Your task to perform on an android device: allow notifications from all sites in the chrome app Image 0: 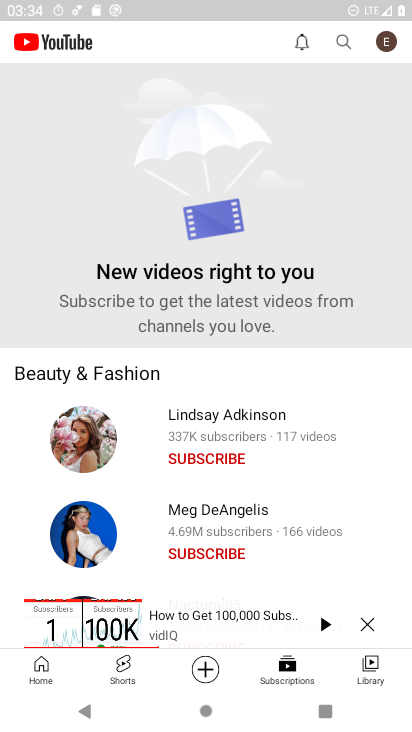
Step 0: press back button
Your task to perform on an android device: allow notifications from all sites in the chrome app Image 1: 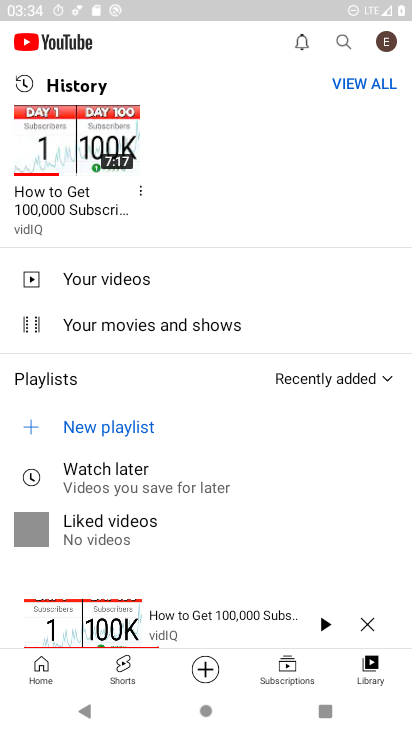
Step 1: press back button
Your task to perform on an android device: allow notifications from all sites in the chrome app Image 2: 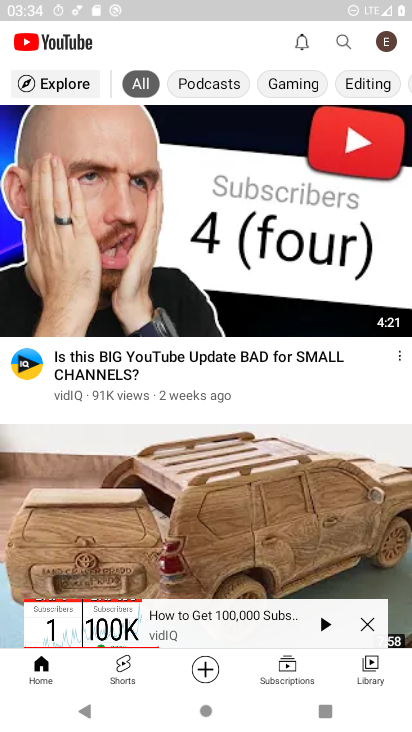
Step 2: press back button
Your task to perform on an android device: allow notifications from all sites in the chrome app Image 3: 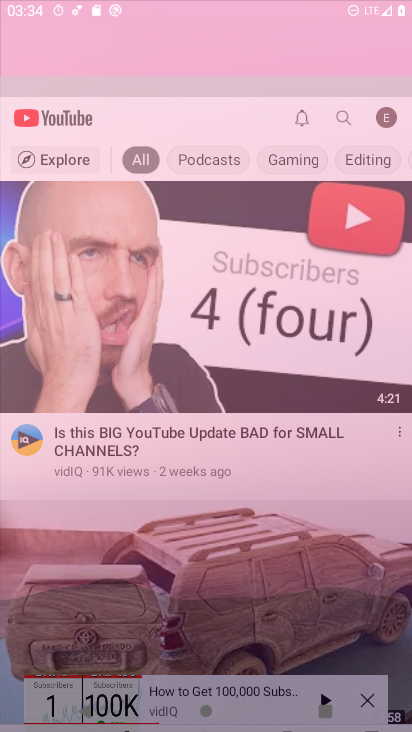
Step 3: press back button
Your task to perform on an android device: allow notifications from all sites in the chrome app Image 4: 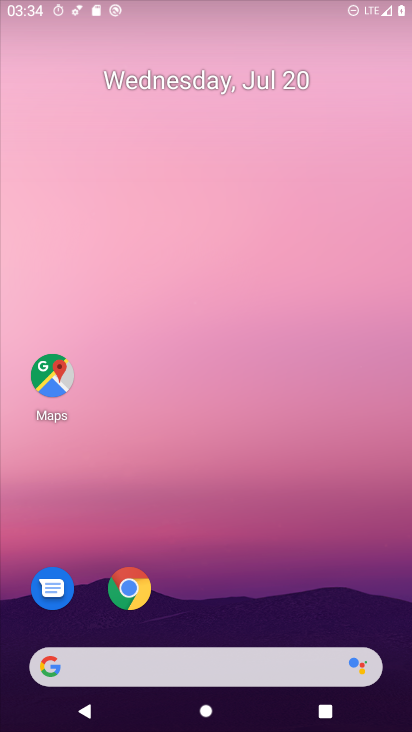
Step 4: press back button
Your task to perform on an android device: allow notifications from all sites in the chrome app Image 5: 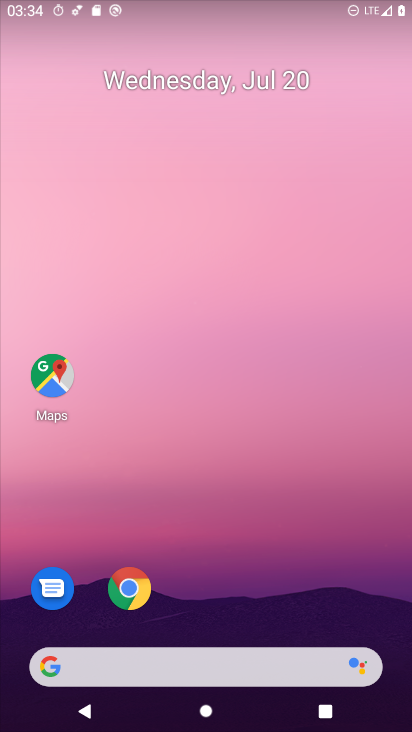
Step 5: drag from (212, 640) to (326, 17)
Your task to perform on an android device: allow notifications from all sites in the chrome app Image 6: 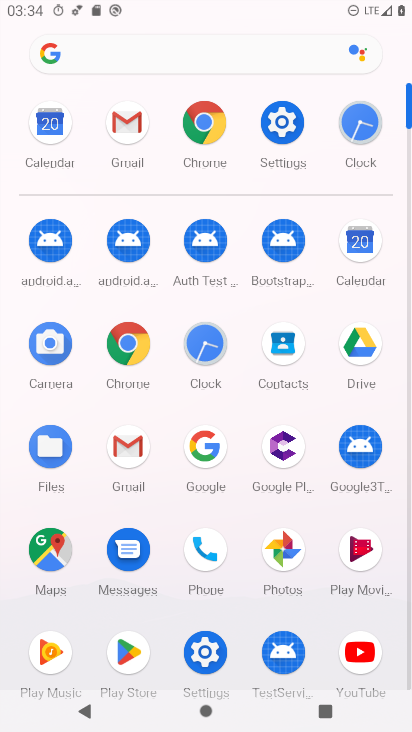
Step 6: click (128, 344)
Your task to perform on an android device: allow notifications from all sites in the chrome app Image 7: 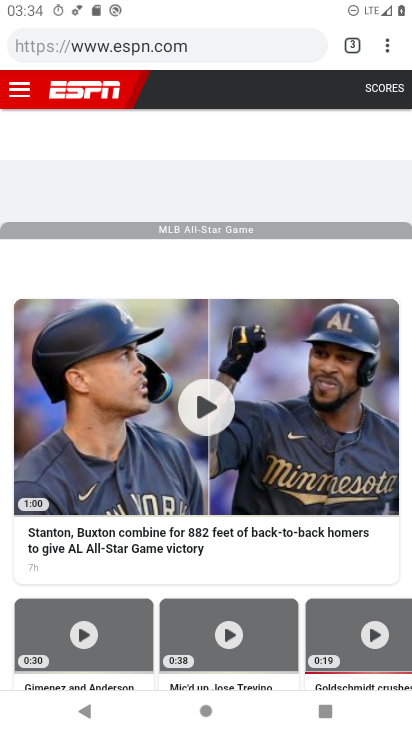
Step 7: click (382, 49)
Your task to perform on an android device: allow notifications from all sites in the chrome app Image 8: 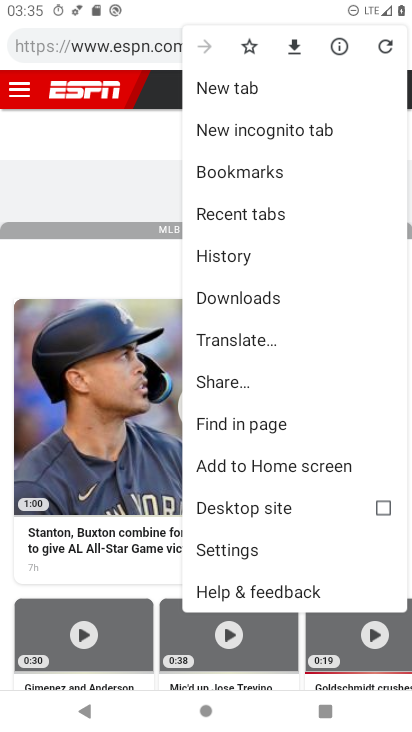
Step 8: click (231, 544)
Your task to perform on an android device: allow notifications from all sites in the chrome app Image 9: 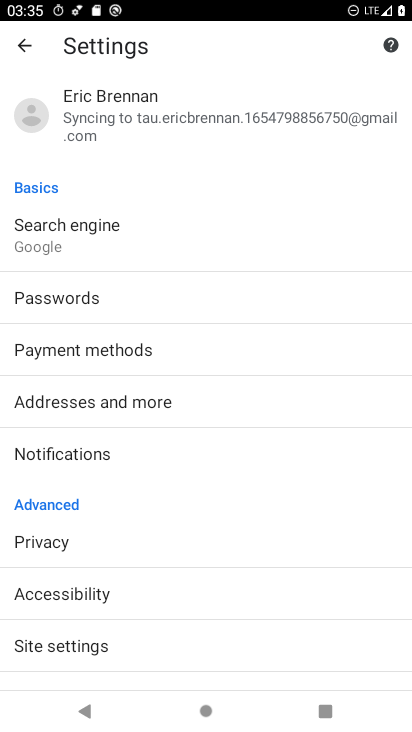
Step 9: drag from (113, 567) to (64, 255)
Your task to perform on an android device: allow notifications from all sites in the chrome app Image 10: 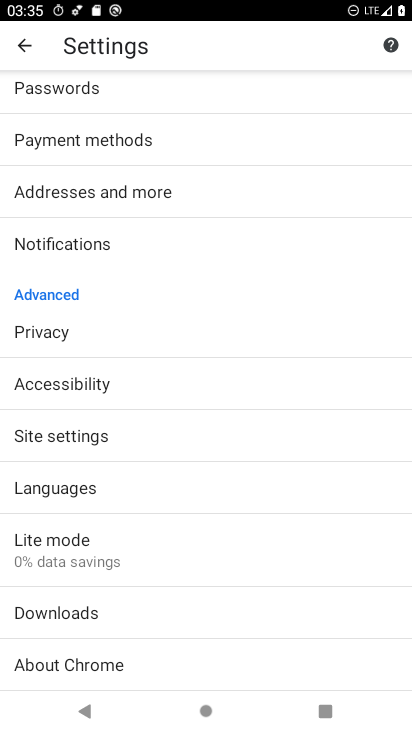
Step 10: click (88, 425)
Your task to perform on an android device: allow notifications from all sites in the chrome app Image 11: 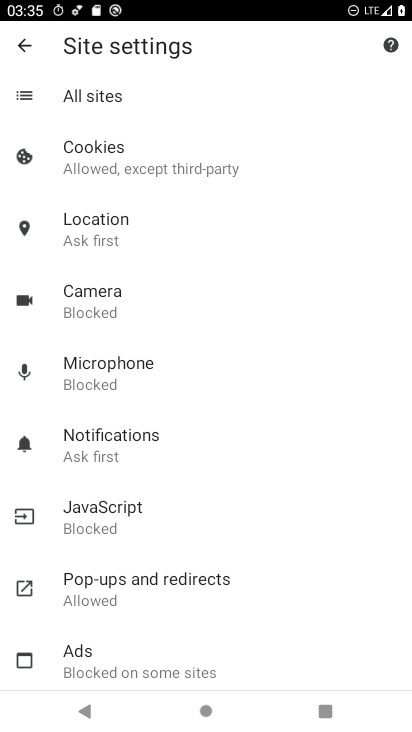
Step 11: click (128, 458)
Your task to perform on an android device: allow notifications from all sites in the chrome app Image 12: 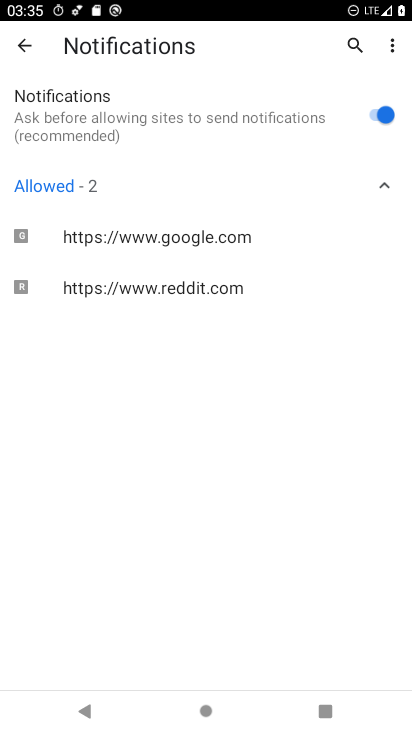
Step 12: task complete